Your task to perform on an android device: Go to location settings Image 0: 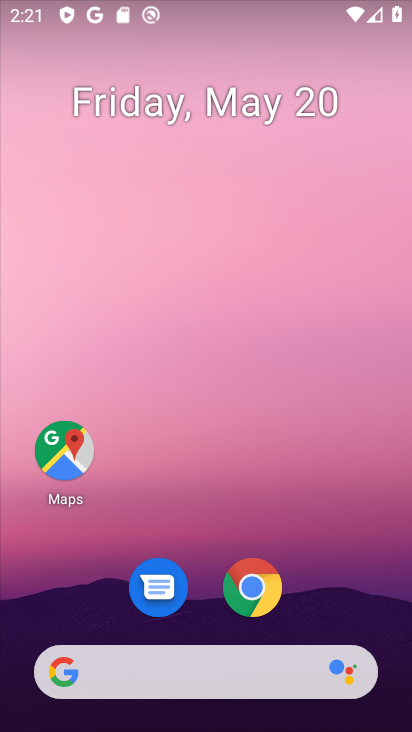
Step 0: drag from (218, 631) to (234, 457)
Your task to perform on an android device: Go to location settings Image 1: 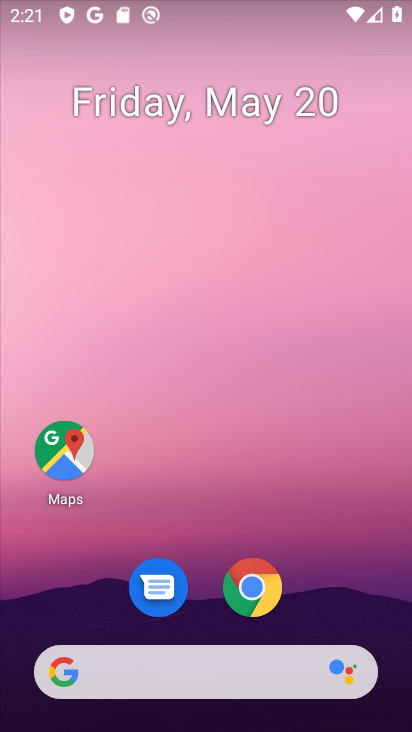
Step 1: drag from (200, 570) to (210, 311)
Your task to perform on an android device: Go to location settings Image 2: 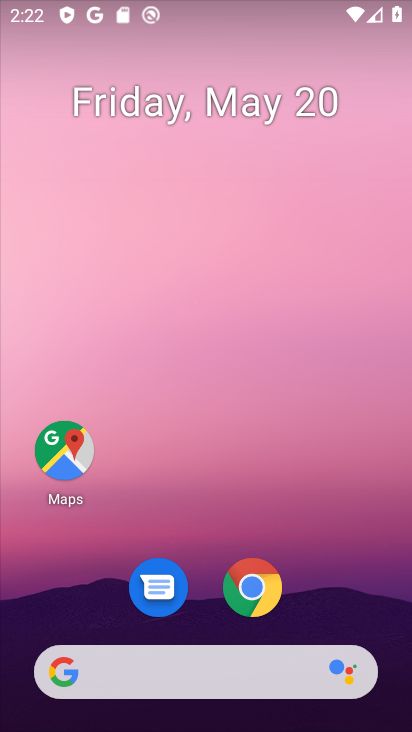
Step 2: drag from (208, 596) to (294, 234)
Your task to perform on an android device: Go to location settings Image 3: 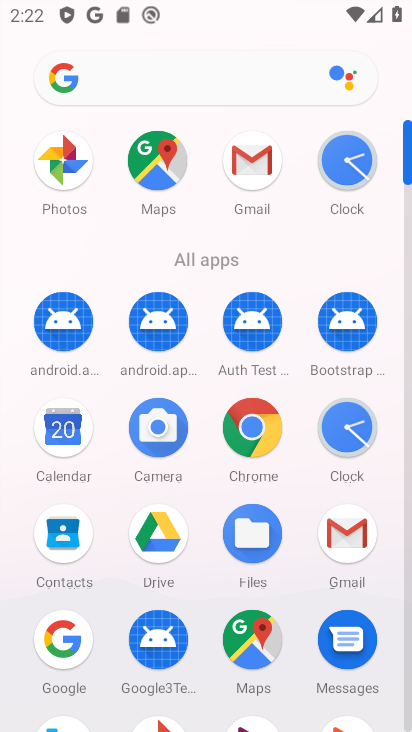
Step 3: drag from (196, 596) to (211, 333)
Your task to perform on an android device: Go to location settings Image 4: 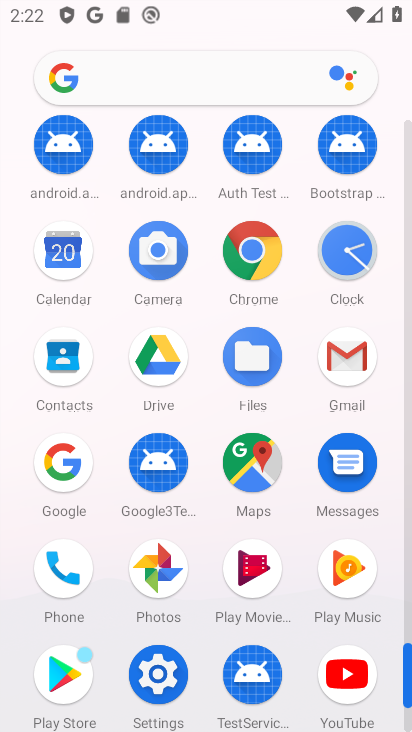
Step 4: click (165, 676)
Your task to perform on an android device: Go to location settings Image 5: 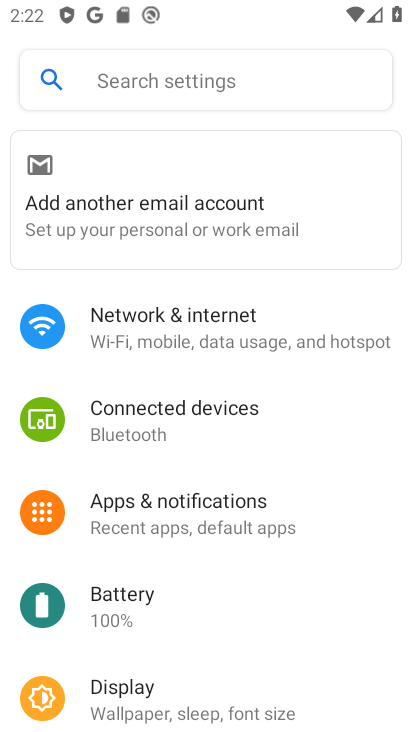
Step 5: drag from (179, 614) to (260, 305)
Your task to perform on an android device: Go to location settings Image 6: 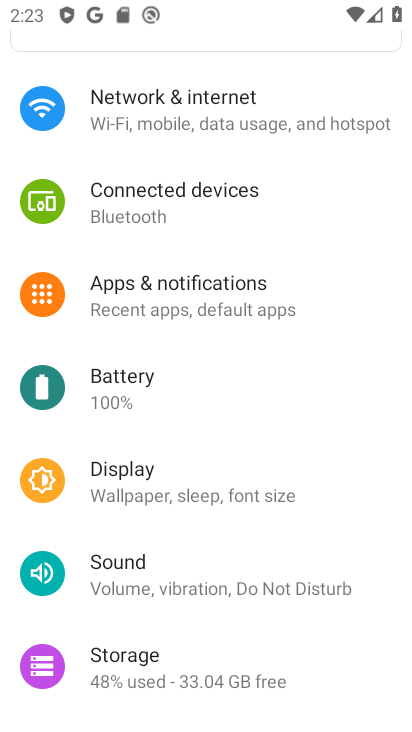
Step 6: drag from (145, 523) to (204, 237)
Your task to perform on an android device: Go to location settings Image 7: 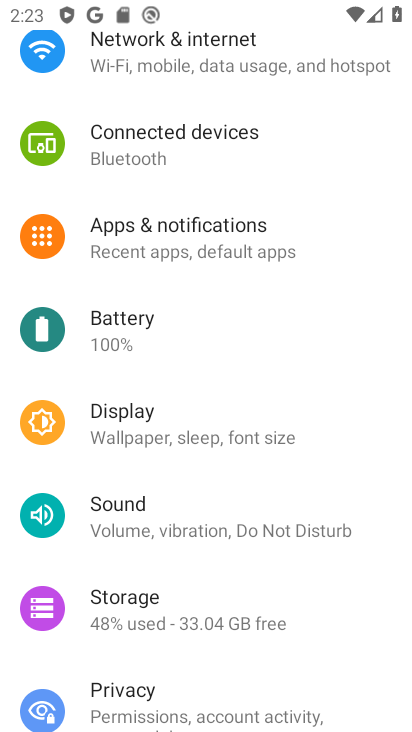
Step 7: drag from (264, 571) to (321, 312)
Your task to perform on an android device: Go to location settings Image 8: 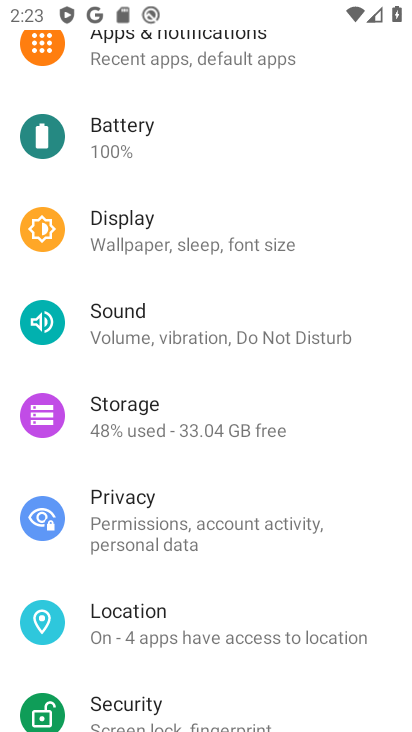
Step 8: drag from (225, 561) to (231, 383)
Your task to perform on an android device: Go to location settings Image 9: 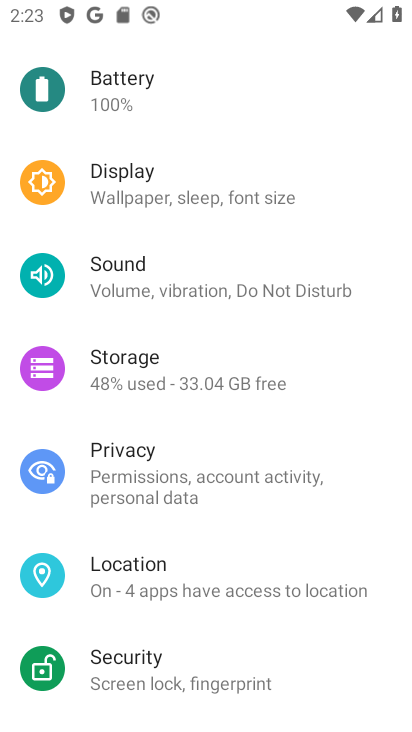
Step 9: click (163, 614)
Your task to perform on an android device: Go to location settings Image 10: 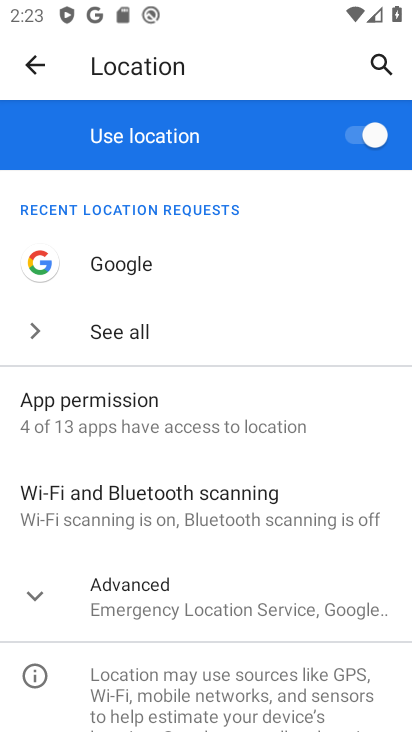
Step 10: task complete